Your task to perform on an android device: uninstall "Viber Messenger" Image 0: 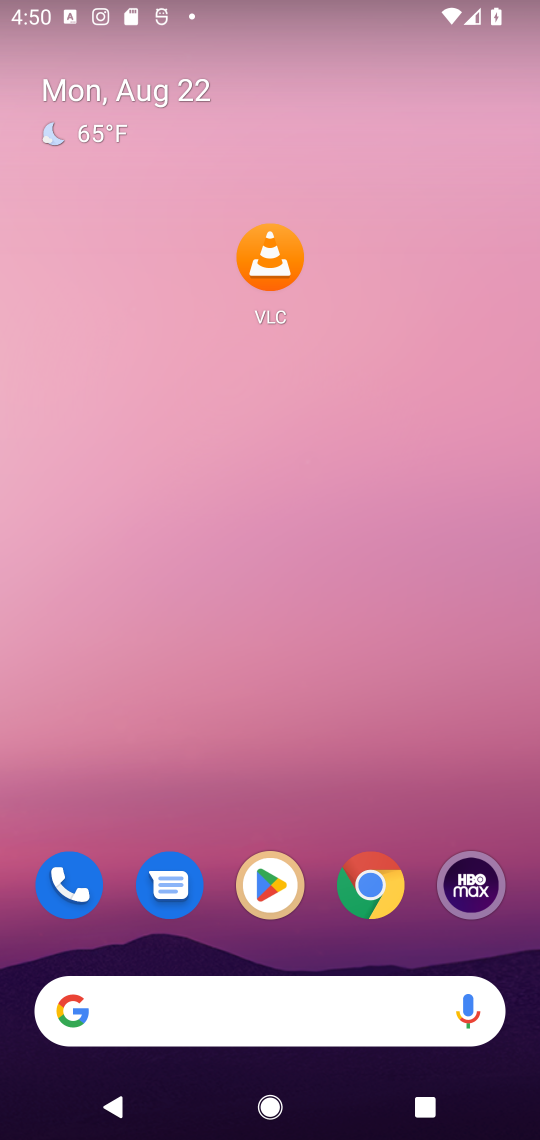
Step 0: click (271, 869)
Your task to perform on an android device: uninstall "Viber Messenger" Image 1: 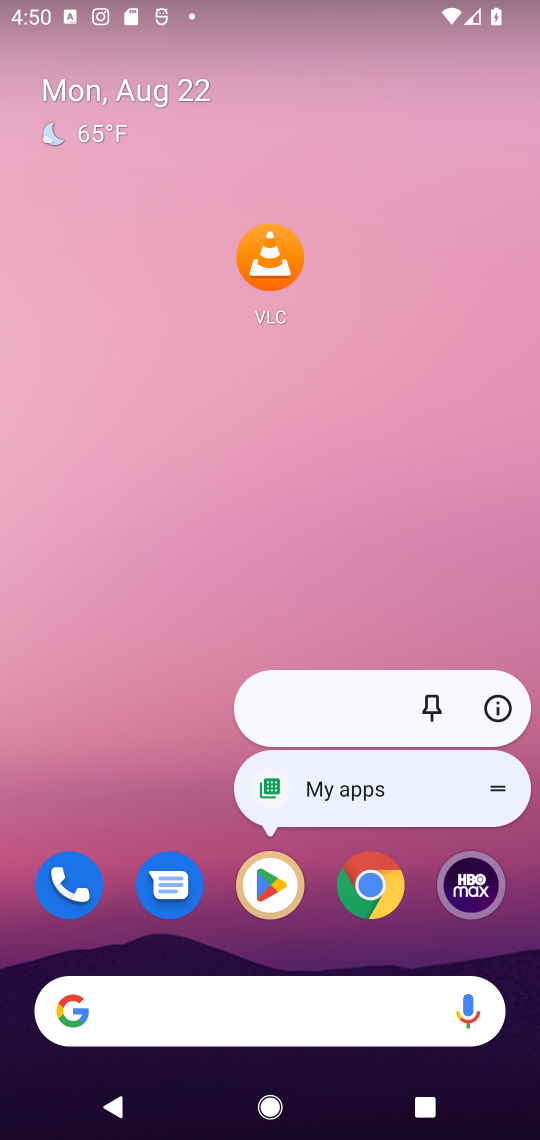
Step 1: click (268, 874)
Your task to perform on an android device: uninstall "Viber Messenger" Image 2: 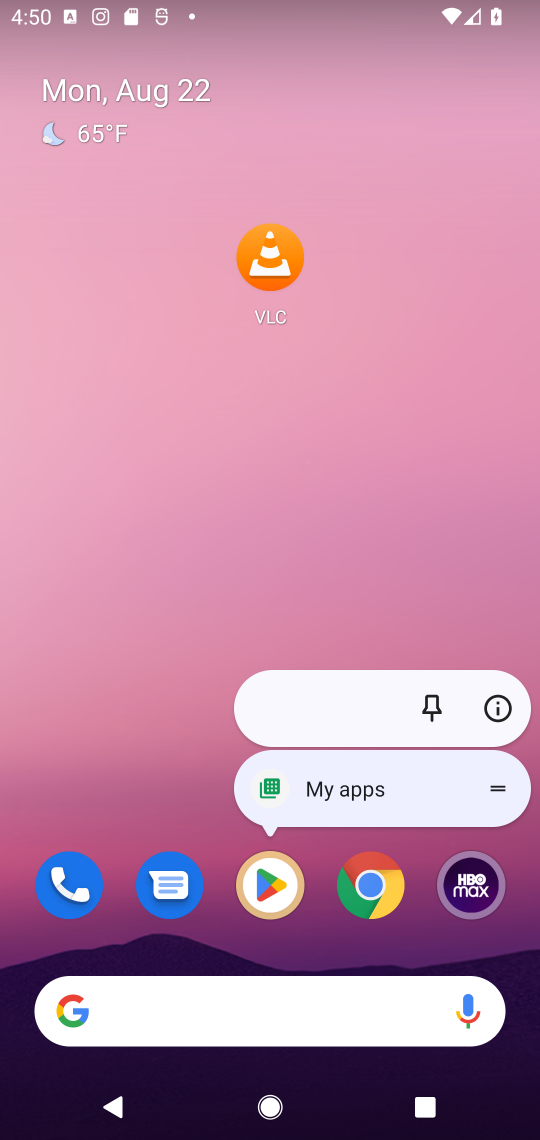
Step 2: click (264, 876)
Your task to perform on an android device: uninstall "Viber Messenger" Image 3: 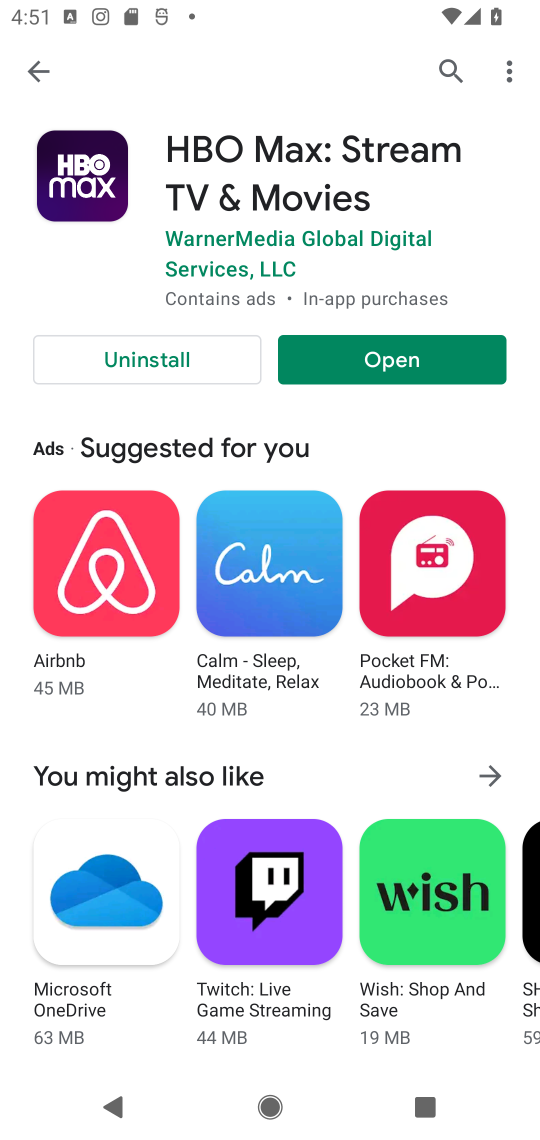
Step 3: click (443, 63)
Your task to perform on an android device: uninstall "Viber Messenger" Image 4: 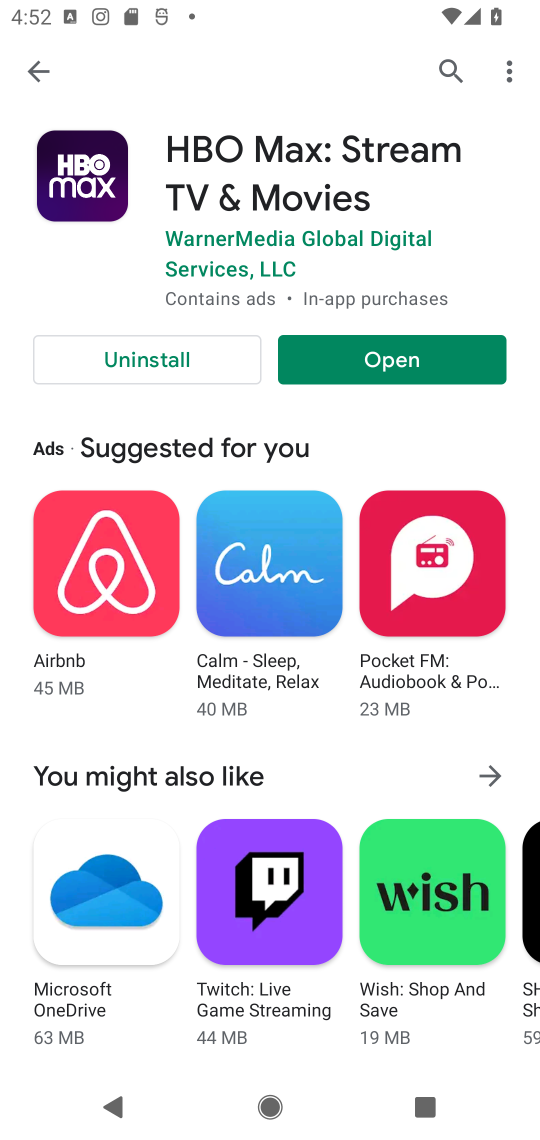
Step 4: click (452, 68)
Your task to perform on an android device: uninstall "Viber Messenger" Image 5: 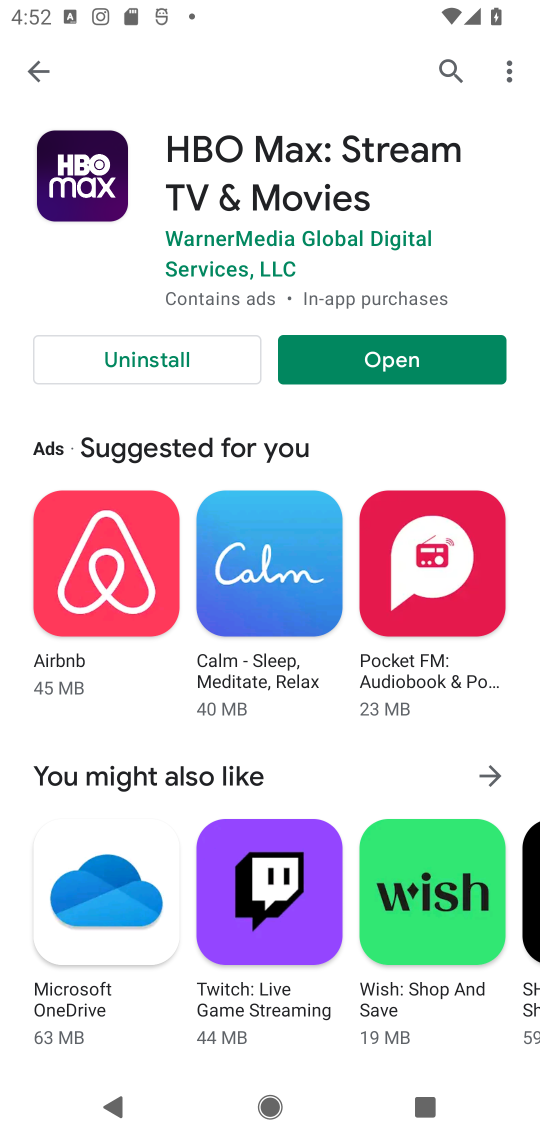
Step 5: click (447, 64)
Your task to perform on an android device: uninstall "Viber Messenger" Image 6: 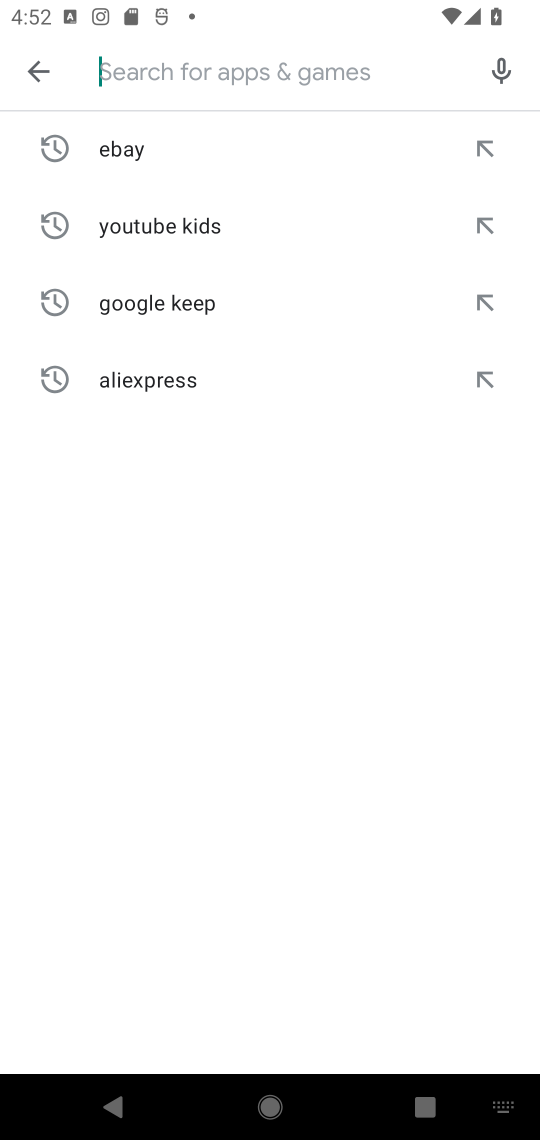
Step 6: type "Viber Messenger"
Your task to perform on an android device: uninstall "Viber Messenger" Image 7: 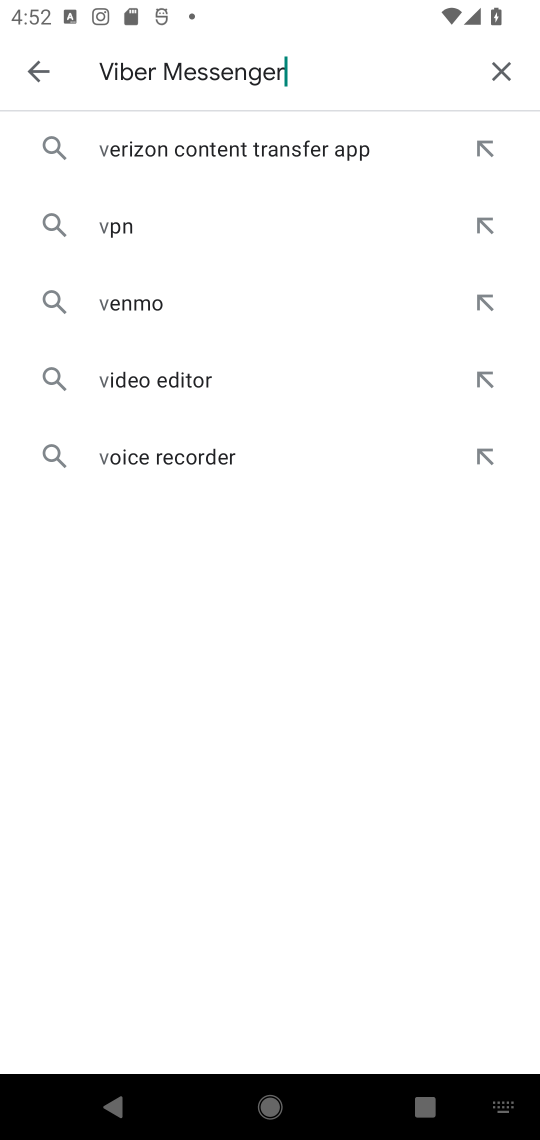
Step 7: type ""
Your task to perform on an android device: uninstall "Viber Messenger" Image 8: 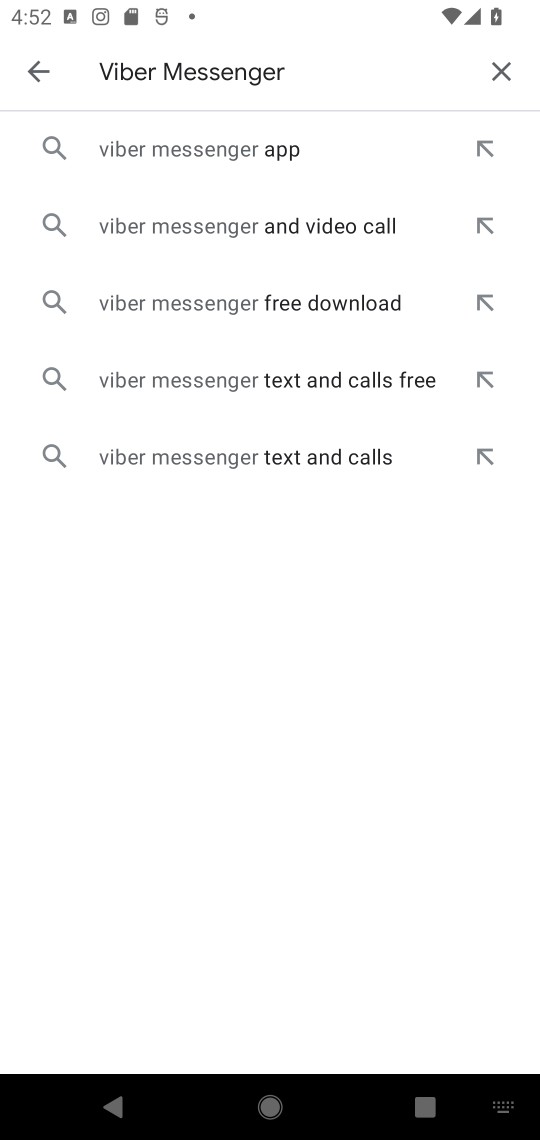
Step 8: click (204, 153)
Your task to perform on an android device: uninstall "Viber Messenger" Image 9: 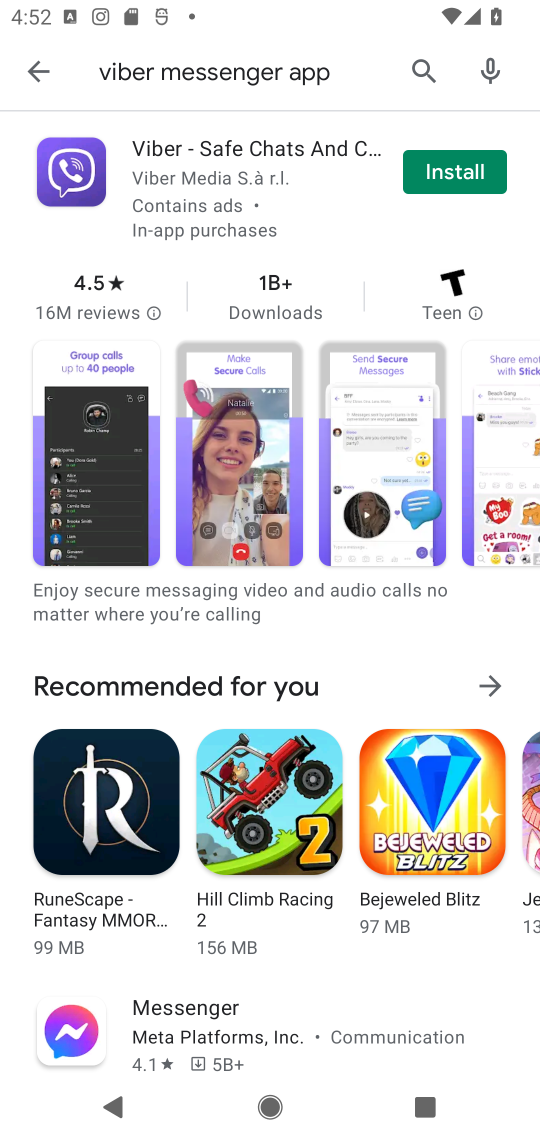
Step 9: task complete